Your task to perform on an android device: remove spam from my inbox in the gmail app Image 0: 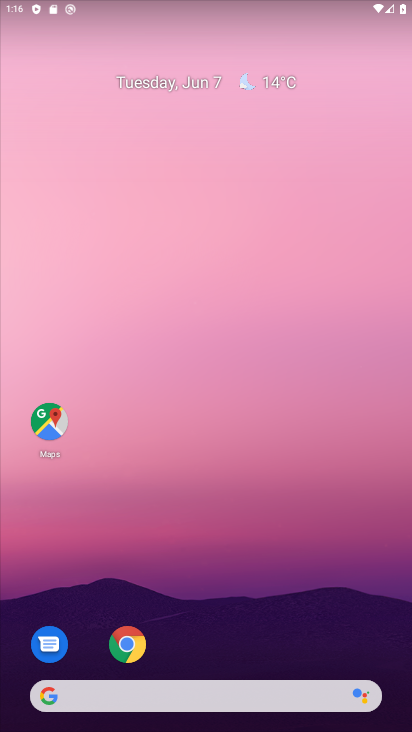
Step 0: drag from (259, 529) to (151, 6)
Your task to perform on an android device: remove spam from my inbox in the gmail app Image 1: 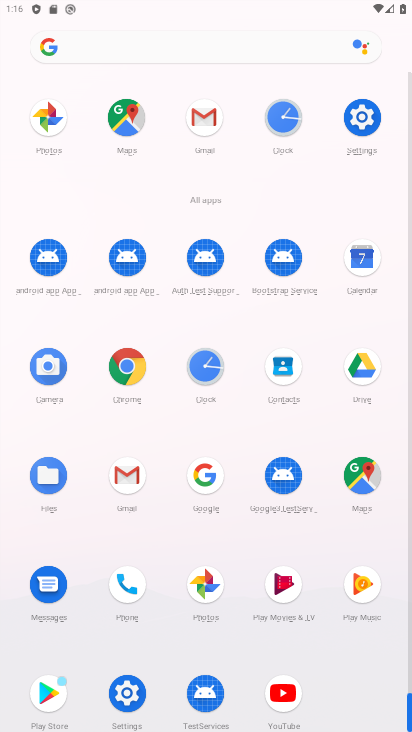
Step 1: click (123, 474)
Your task to perform on an android device: remove spam from my inbox in the gmail app Image 2: 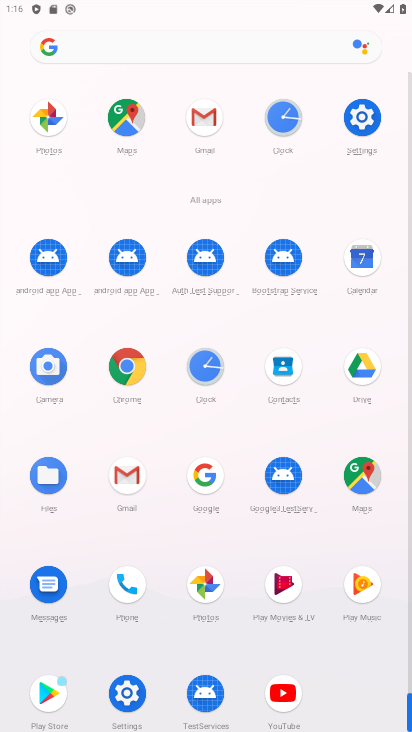
Step 2: click (123, 474)
Your task to perform on an android device: remove spam from my inbox in the gmail app Image 3: 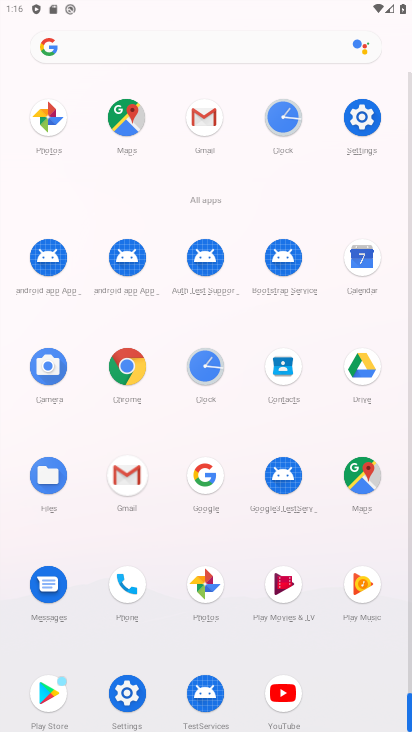
Step 3: click (122, 473)
Your task to perform on an android device: remove spam from my inbox in the gmail app Image 4: 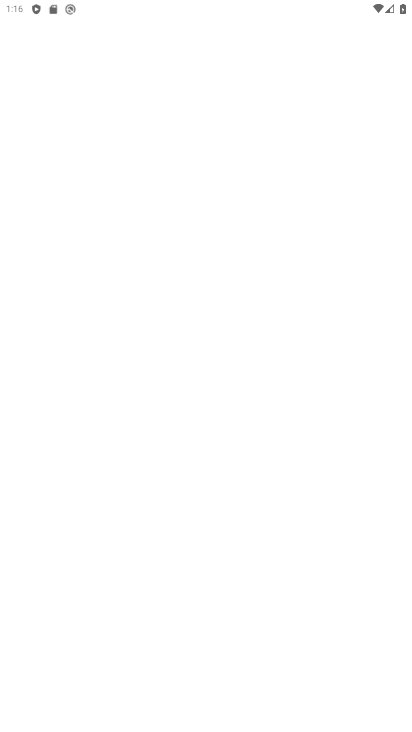
Step 4: click (122, 472)
Your task to perform on an android device: remove spam from my inbox in the gmail app Image 5: 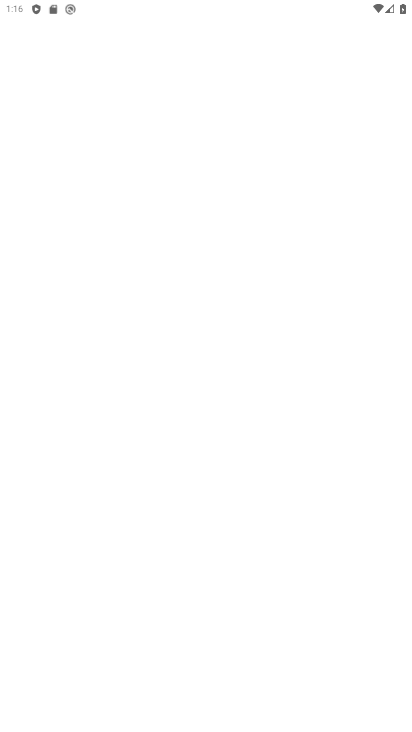
Step 5: click (122, 472)
Your task to perform on an android device: remove spam from my inbox in the gmail app Image 6: 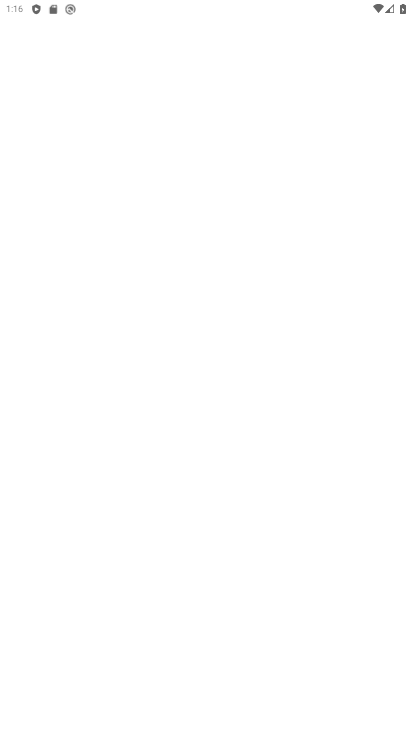
Step 6: click (124, 471)
Your task to perform on an android device: remove spam from my inbox in the gmail app Image 7: 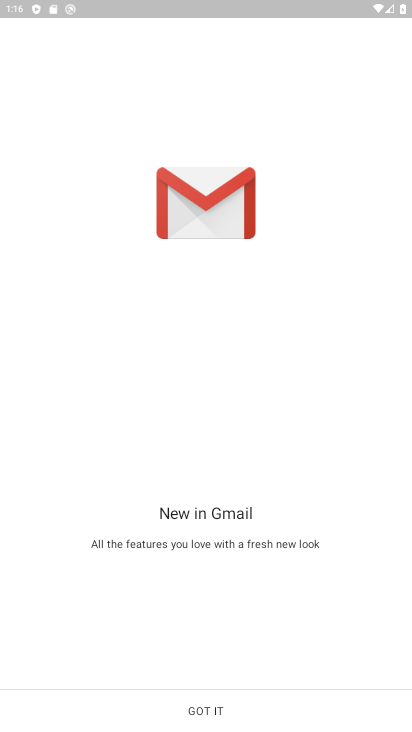
Step 7: click (206, 705)
Your task to perform on an android device: remove spam from my inbox in the gmail app Image 8: 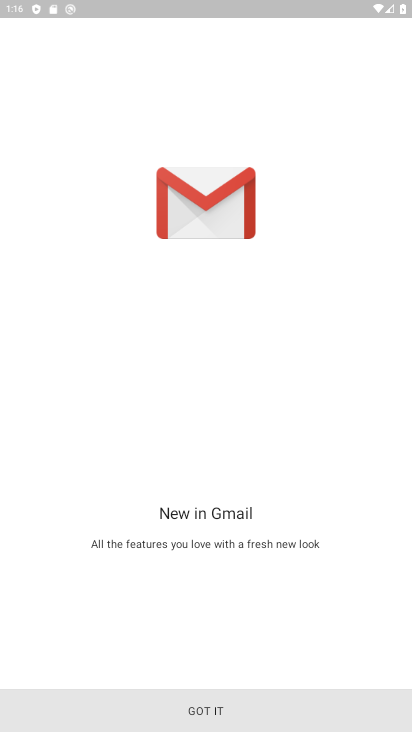
Step 8: click (209, 708)
Your task to perform on an android device: remove spam from my inbox in the gmail app Image 9: 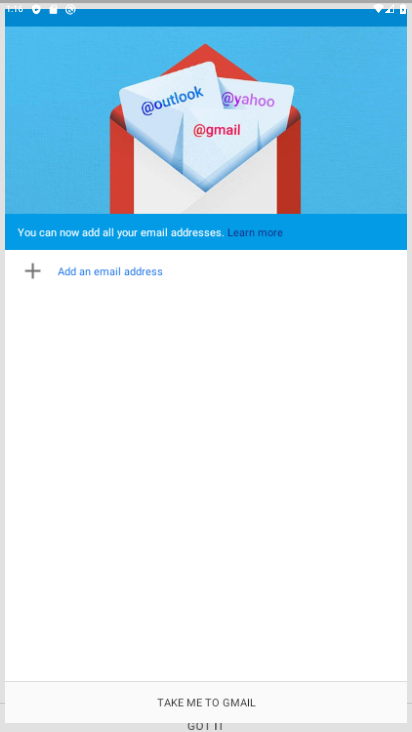
Step 9: click (200, 713)
Your task to perform on an android device: remove spam from my inbox in the gmail app Image 10: 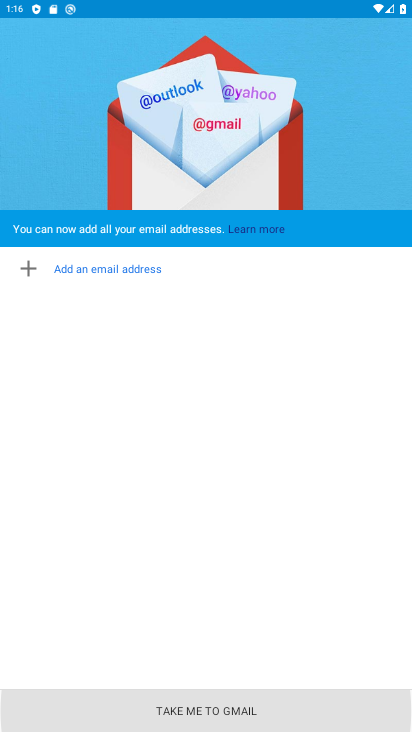
Step 10: click (200, 707)
Your task to perform on an android device: remove spam from my inbox in the gmail app Image 11: 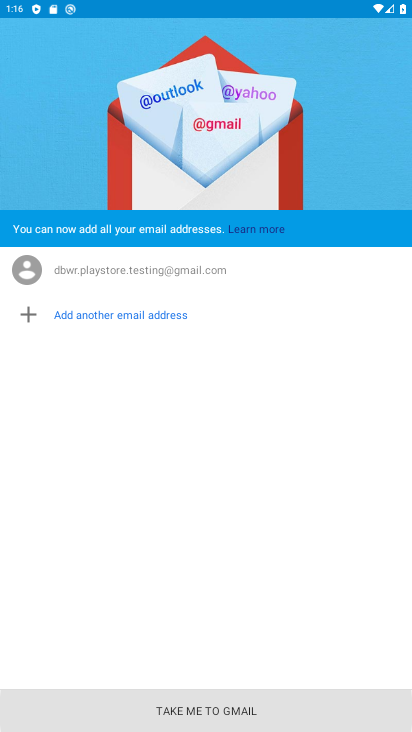
Step 11: click (204, 708)
Your task to perform on an android device: remove spam from my inbox in the gmail app Image 12: 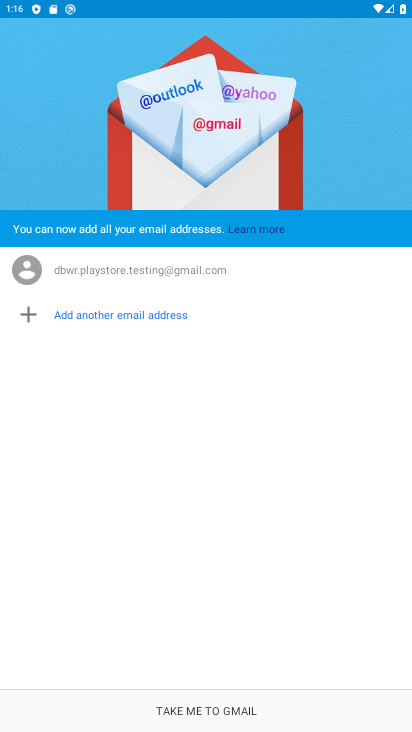
Step 12: click (210, 696)
Your task to perform on an android device: remove spam from my inbox in the gmail app Image 13: 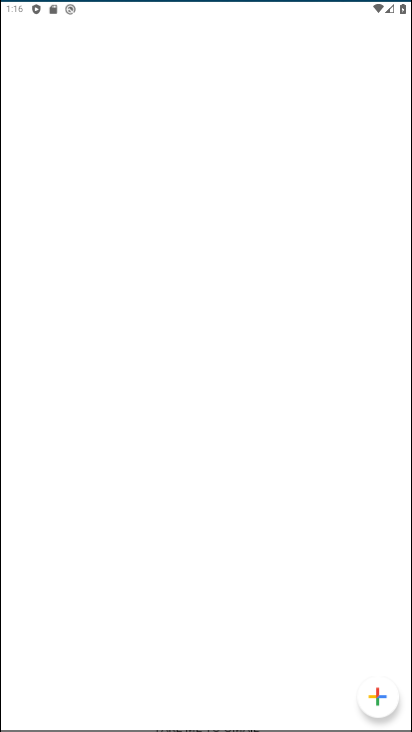
Step 13: click (195, 695)
Your task to perform on an android device: remove spam from my inbox in the gmail app Image 14: 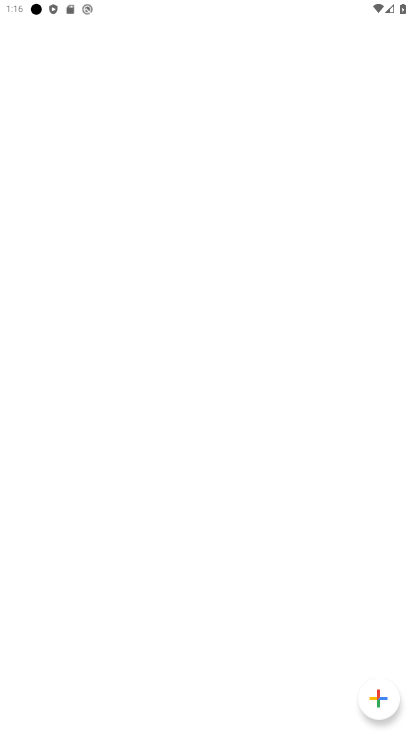
Step 14: click (217, 696)
Your task to perform on an android device: remove spam from my inbox in the gmail app Image 15: 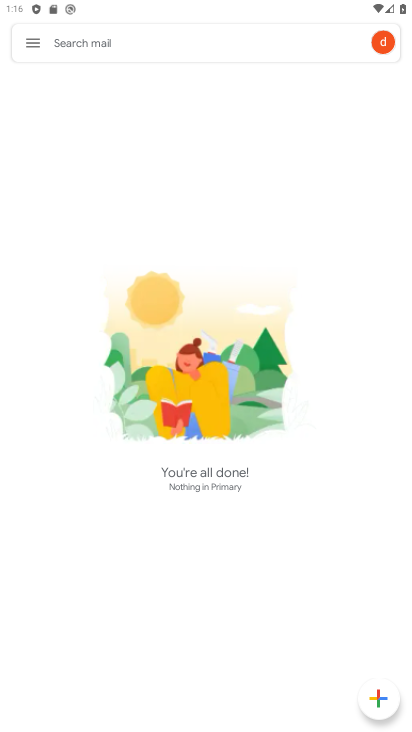
Step 15: click (34, 47)
Your task to perform on an android device: remove spam from my inbox in the gmail app Image 16: 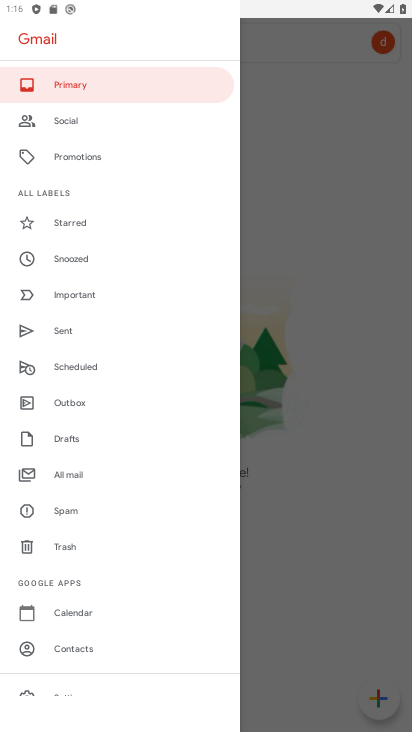
Step 16: click (61, 506)
Your task to perform on an android device: remove spam from my inbox in the gmail app Image 17: 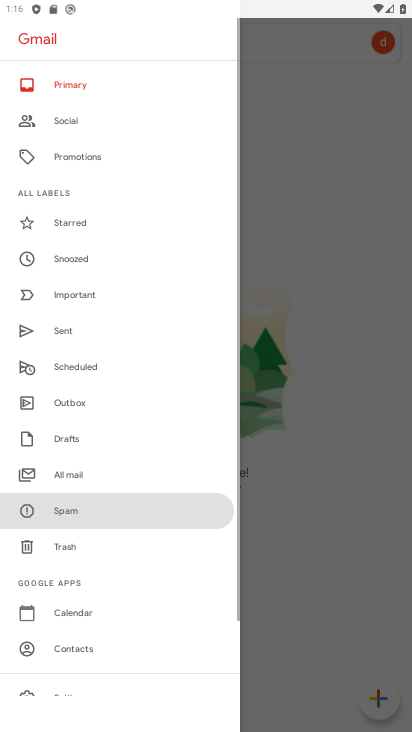
Step 17: click (61, 506)
Your task to perform on an android device: remove spam from my inbox in the gmail app Image 18: 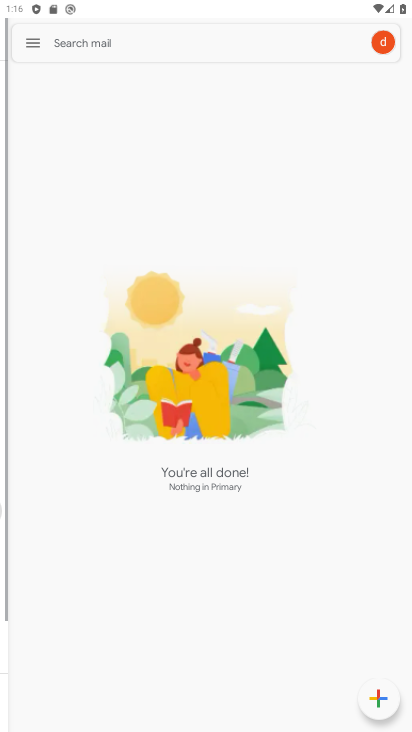
Step 18: click (60, 505)
Your task to perform on an android device: remove spam from my inbox in the gmail app Image 19: 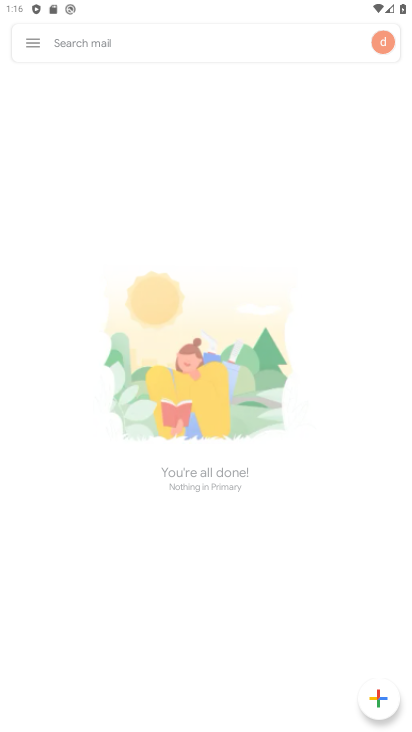
Step 19: click (60, 505)
Your task to perform on an android device: remove spam from my inbox in the gmail app Image 20: 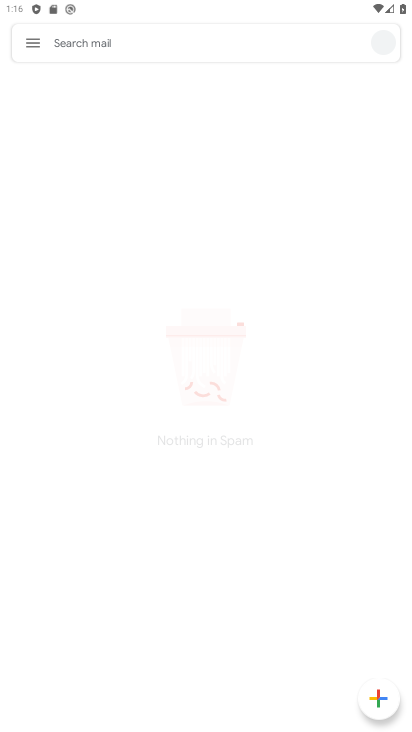
Step 20: click (60, 505)
Your task to perform on an android device: remove spam from my inbox in the gmail app Image 21: 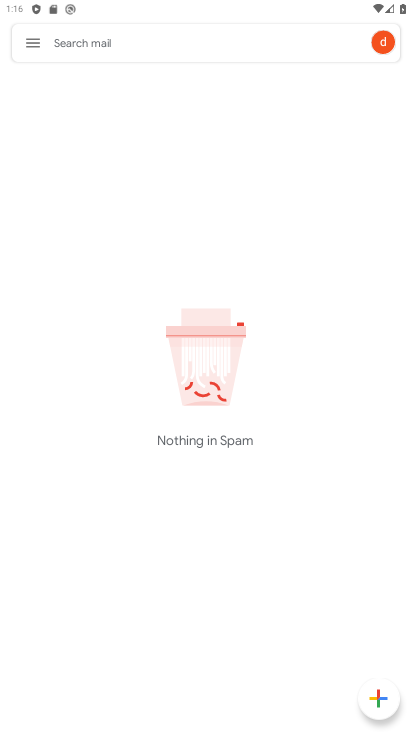
Step 21: click (60, 505)
Your task to perform on an android device: remove spam from my inbox in the gmail app Image 22: 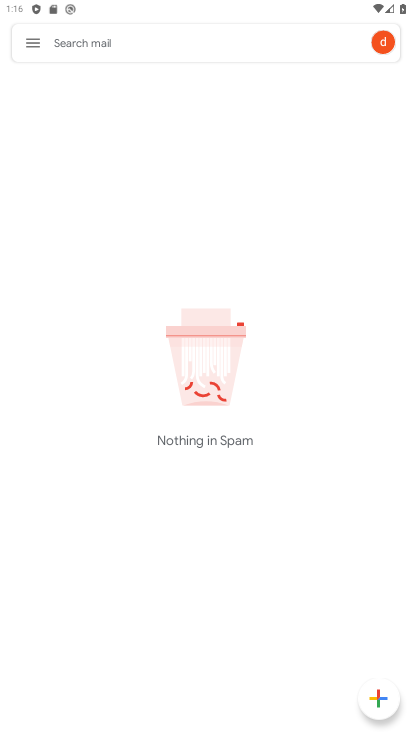
Step 22: click (61, 503)
Your task to perform on an android device: remove spam from my inbox in the gmail app Image 23: 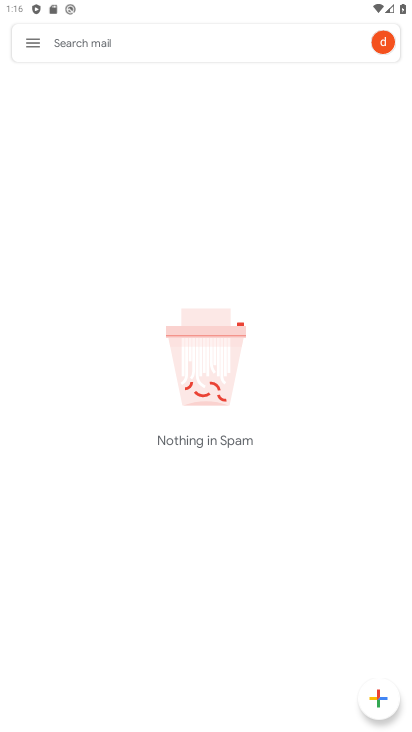
Step 23: click (61, 503)
Your task to perform on an android device: remove spam from my inbox in the gmail app Image 24: 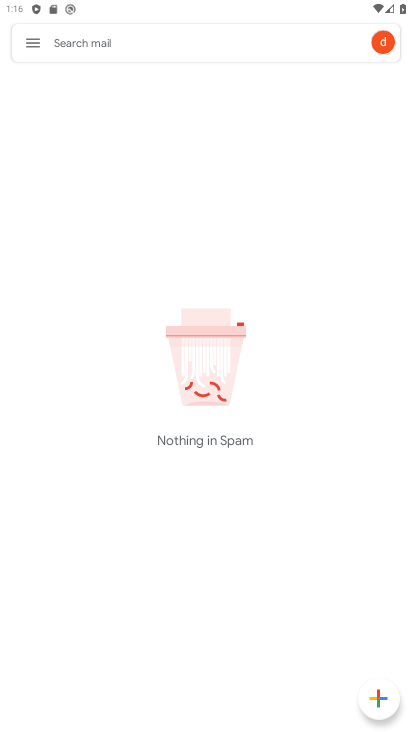
Step 24: task complete